Your task to perform on an android device: uninstall "Google Chat" Image 0: 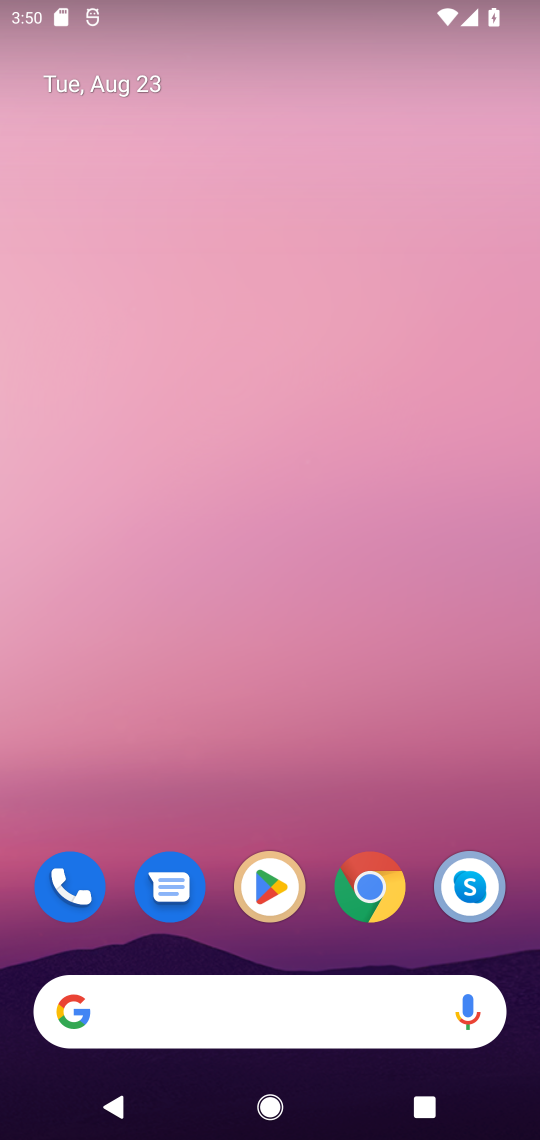
Step 0: click (269, 882)
Your task to perform on an android device: uninstall "Google Chat" Image 1: 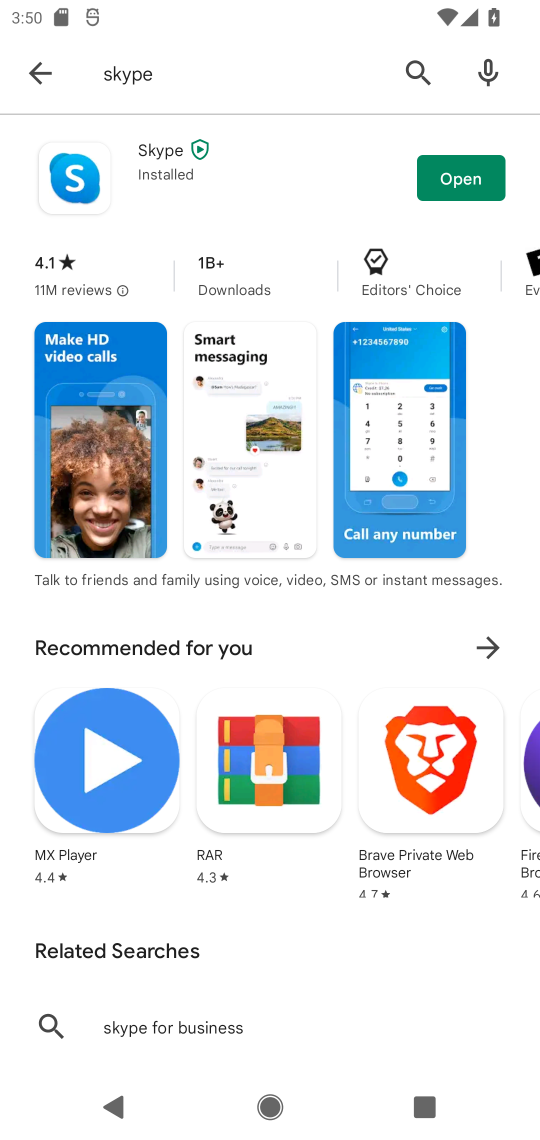
Step 1: click (32, 75)
Your task to perform on an android device: uninstall "Google Chat" Image 2: 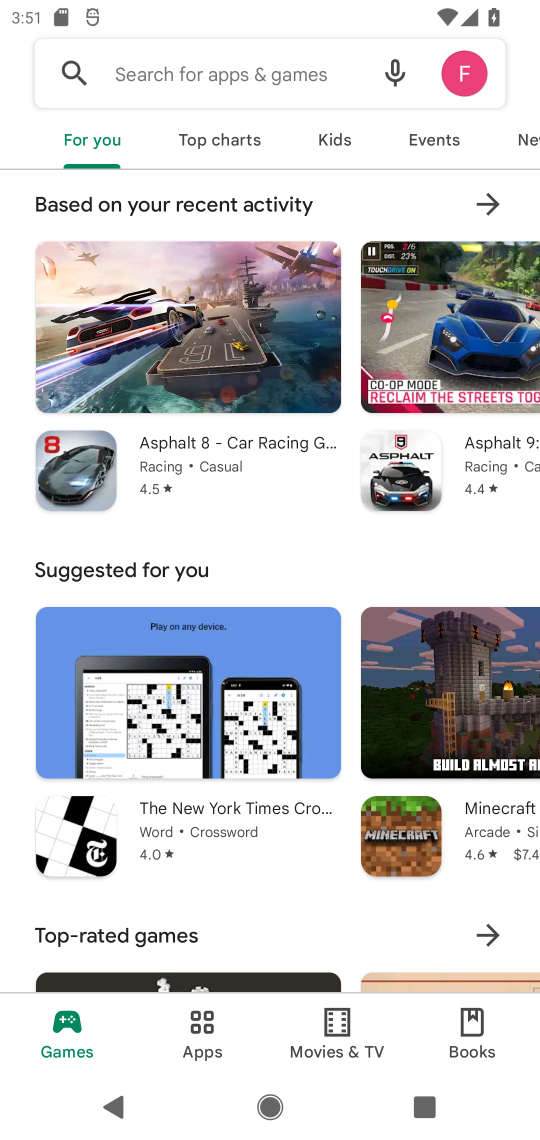
Step 2: click (257, 63)
Your task to perform on an android device: uninstall "Google Chat" Image 3: 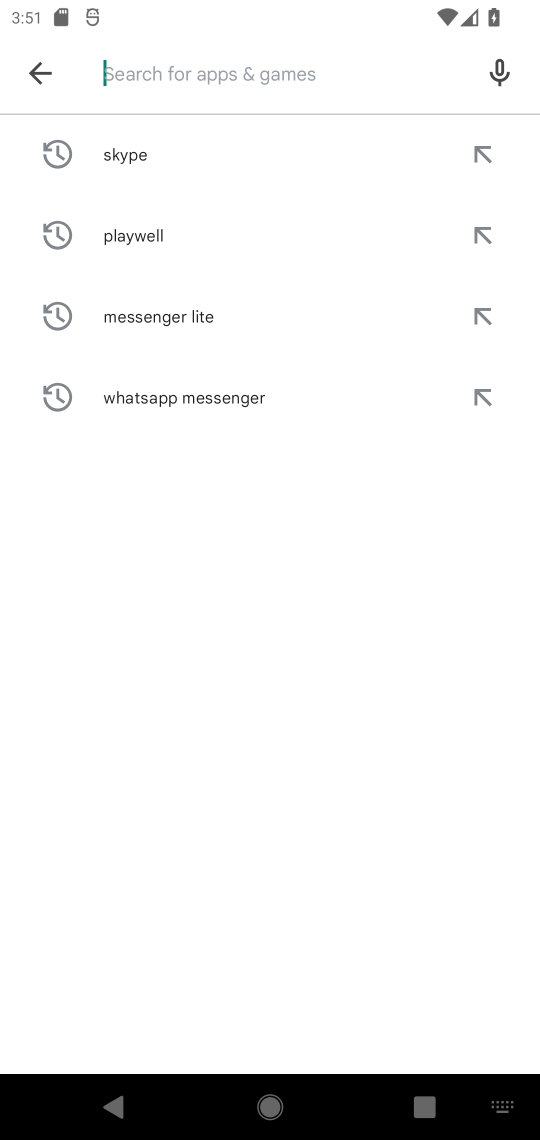
Step 3: type "Google Chat"
Your task to perform on an android device: uninstall "Google Chat" Image 4: 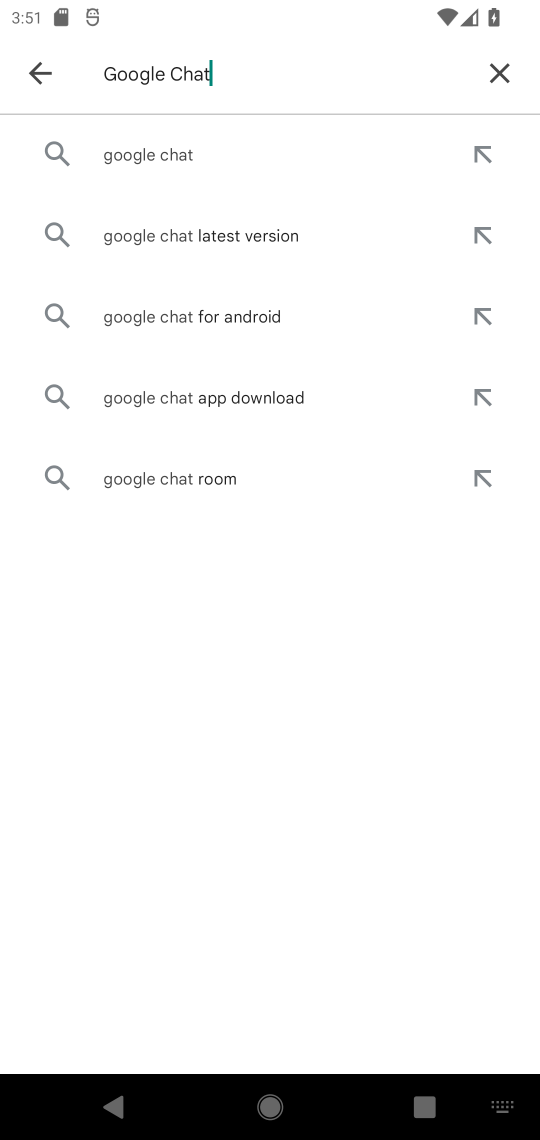
Step 4: click (149, 159)
Your task to perform on an android device: uninstall "Google Chat" Image 5: 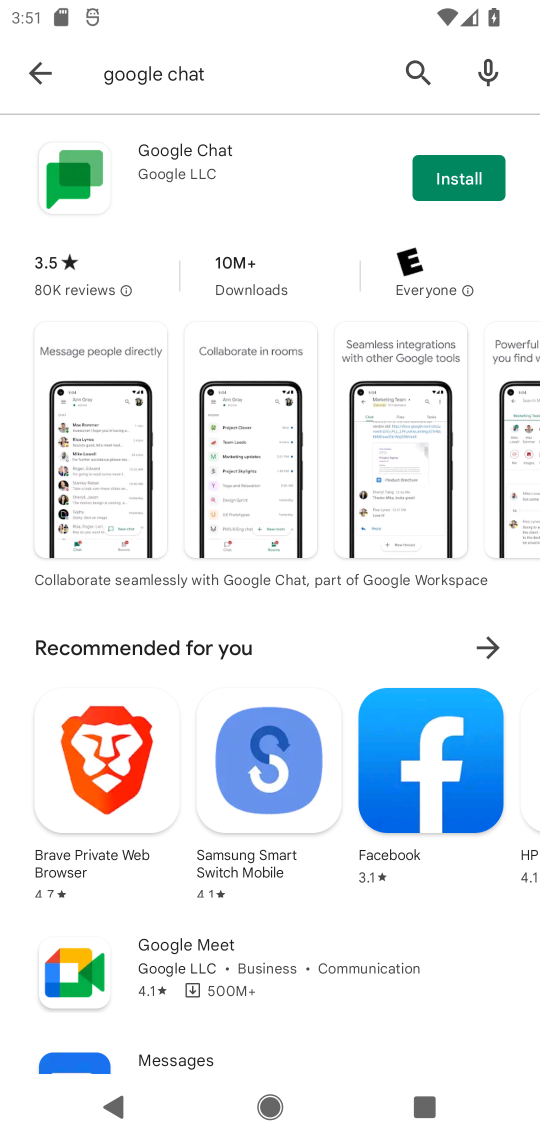
Step 5: task complete